Your task to perform on an android device: Open the map Image 0: 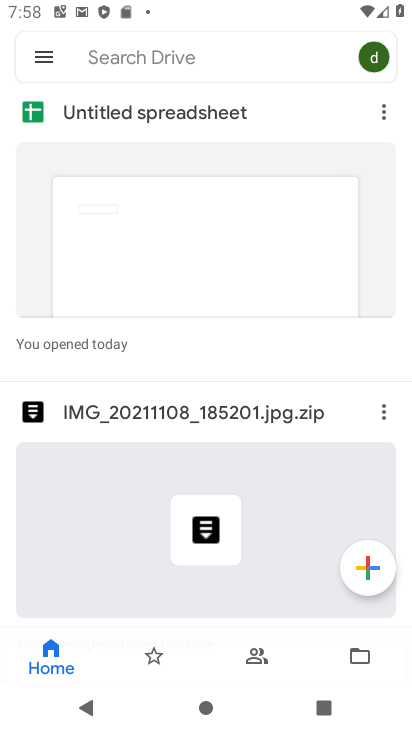
Step 0: press home button
Your task to perform on an android device: Open the map Image 1: 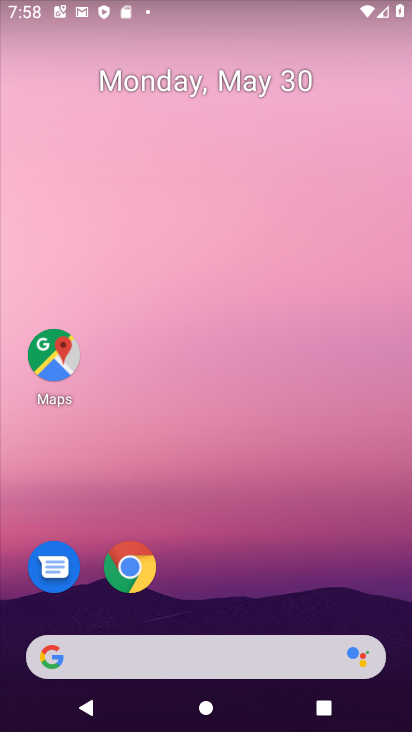
Step 1: click (65, 373)
Your task to perform on an android device: Open the map Image 2: 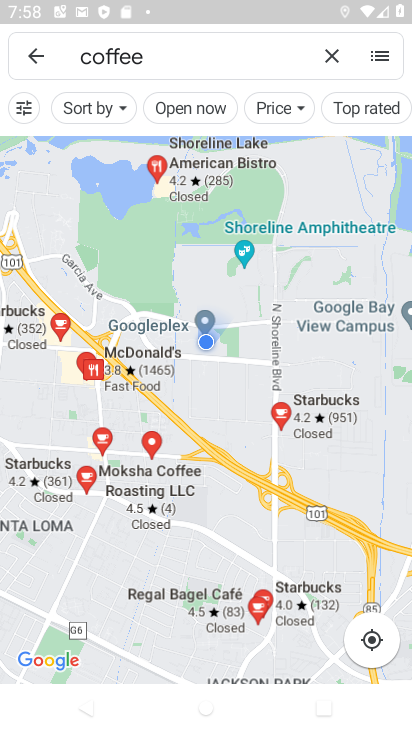
Step 2: task complete